Your task to perform on an android device: Open calendar and show me the second week of next month Image 0: 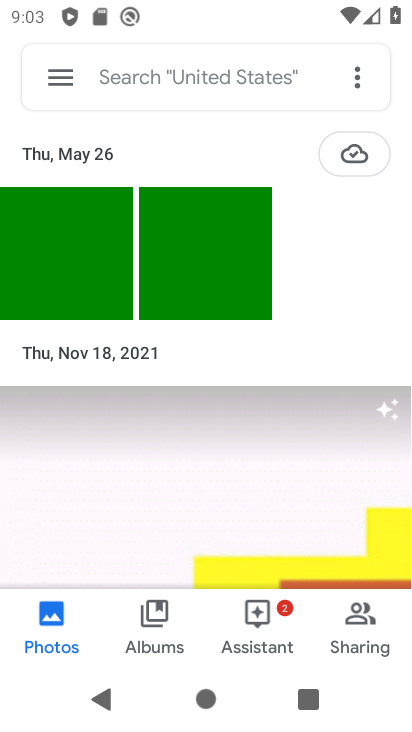
Step 0: press home button
Your task to perform on an android device: Open calendar and show me the second week of next month Image 1: 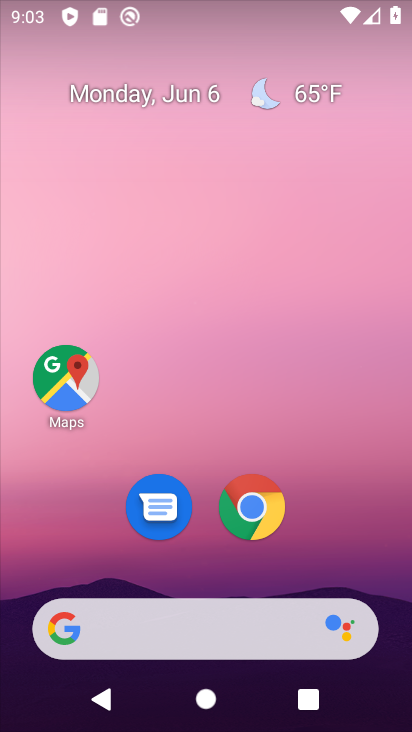
Step 1: drag from (149, 575) to (144, 204)
Your task to perform on an android device: Open calendar and show me the second week of next month Image 2: 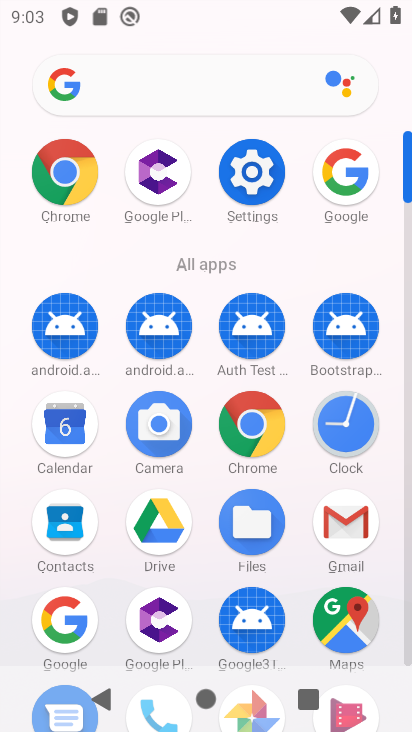
Step 2: click (66, 419)
Your task to perform on an android device: Open calendar and show me the second week of next month Image 3: 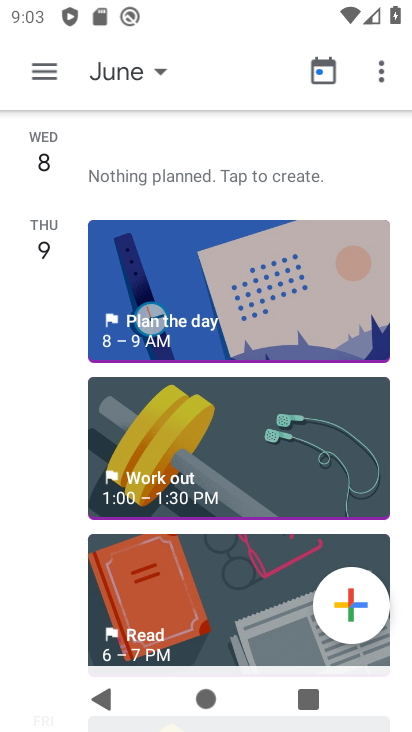
Step 3: click (49, 77)
Your task to perform on an android device: Open calendar and show me the second week of next month Image 4: 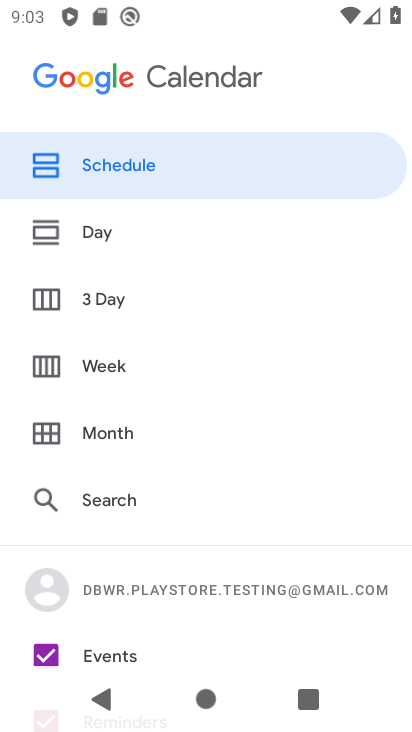
Step 4: click (96, 434)
Your task to perform on an android device: Open calendar and show me the second week of next month Image 5: 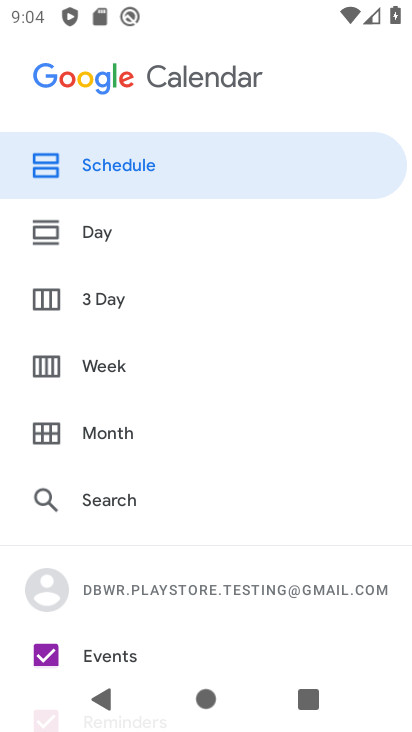
Step 5: click (83, 428)
Your task to perform on an android device: Open calendar and show me the second week of next month Image 6: 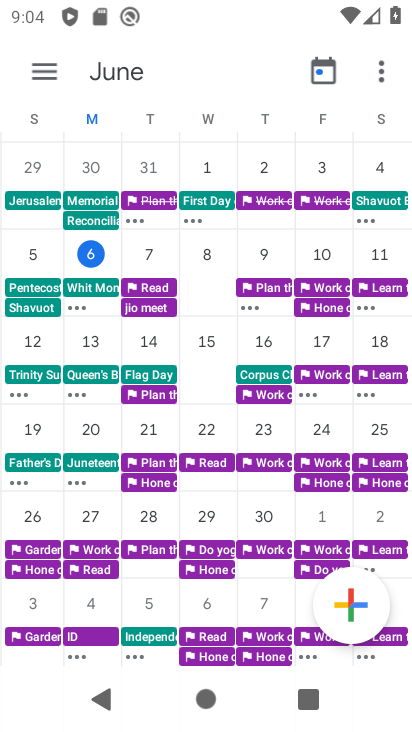
Step 6: click (48, 71)
Your task to perform on an android device: Open calendar and show me the second week of next month Image 7: 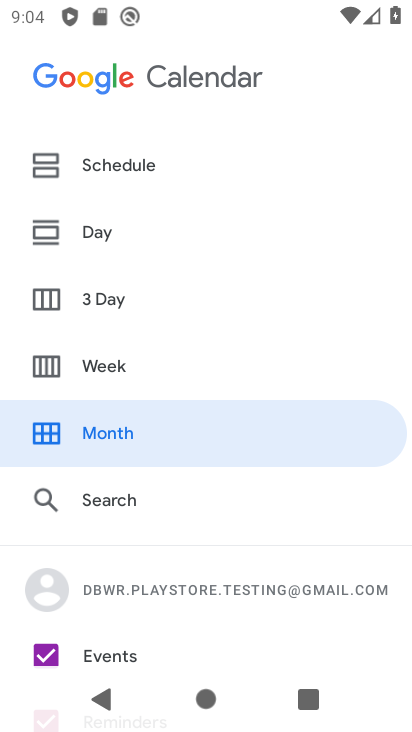
Step 7: click (133, 427)
Your task to perform on an android device: Open calendar and show me the second week of next month Image 8: 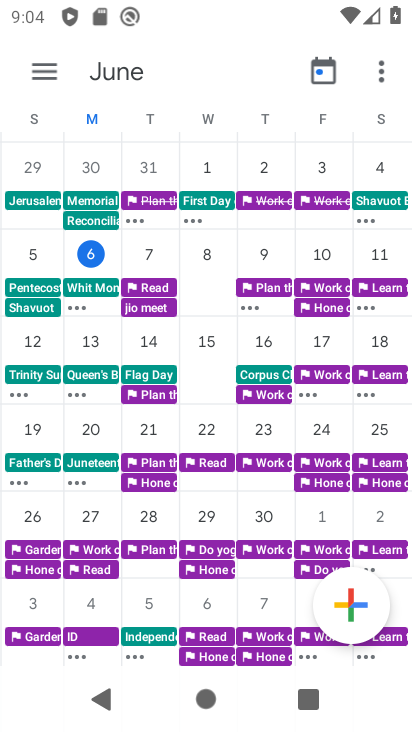
Step 8: drag from (336, 382) to (12, 383)
Your task to perform on an android device: Open calendar and show me the second week of next month Image 9: 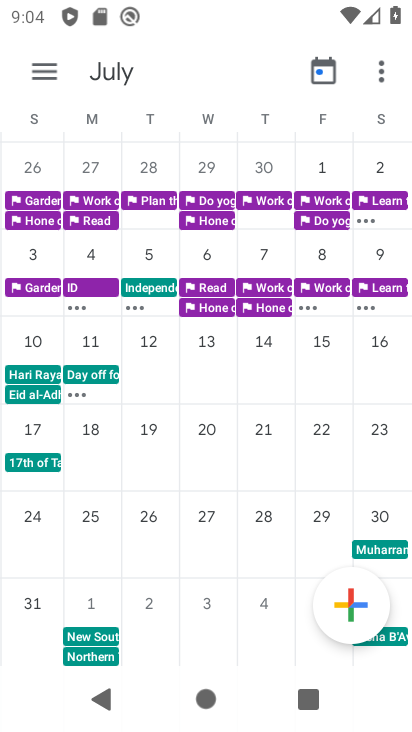
Step 9: click (44, 63)
Your task to perform on an android device: Open calendar and show me the second week of next month Image 10: 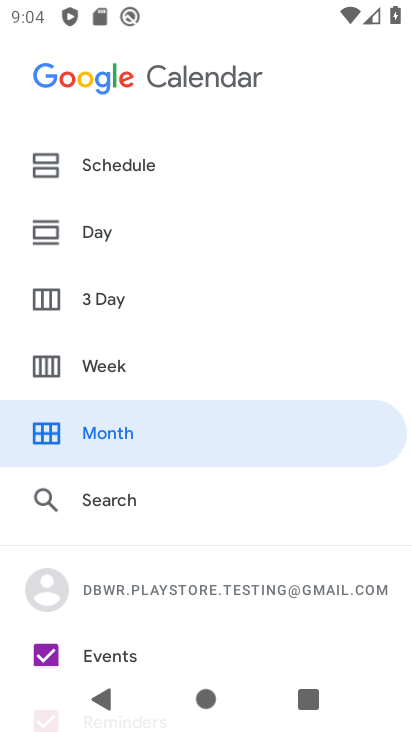
Step 10: click (140, 360)
Your task to perform on an android device: Open calendar and show me the second week of next month Image 11: 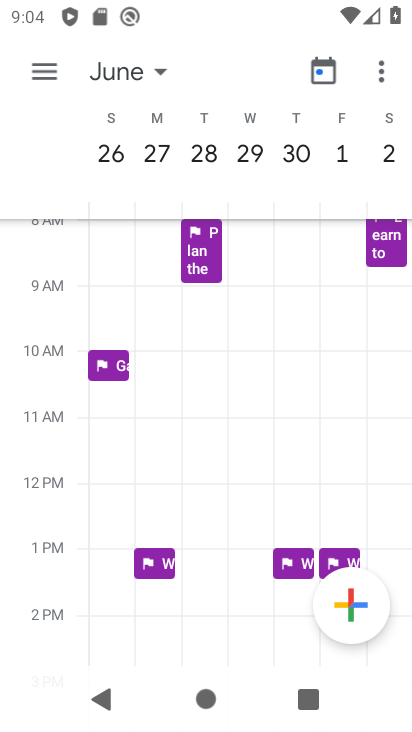
Step 11: task complete